Your task to perform on an android device: turn off data saver in the chrome app Image 0: 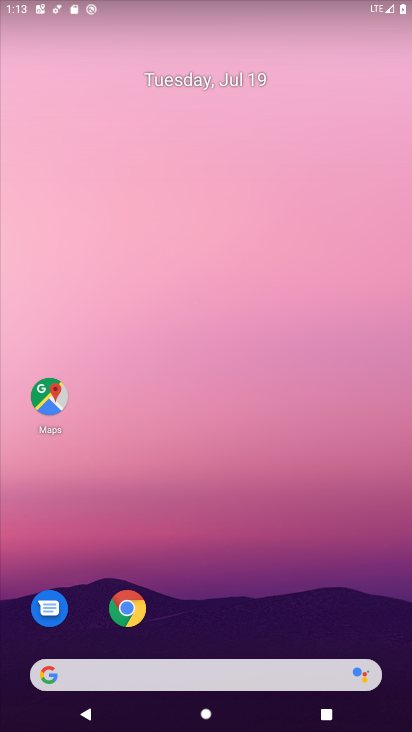
Step 0: drag from (223, 536) to (289, 129)
Your task to perform on an android device: turn off data saver in the chrome app Image 1: 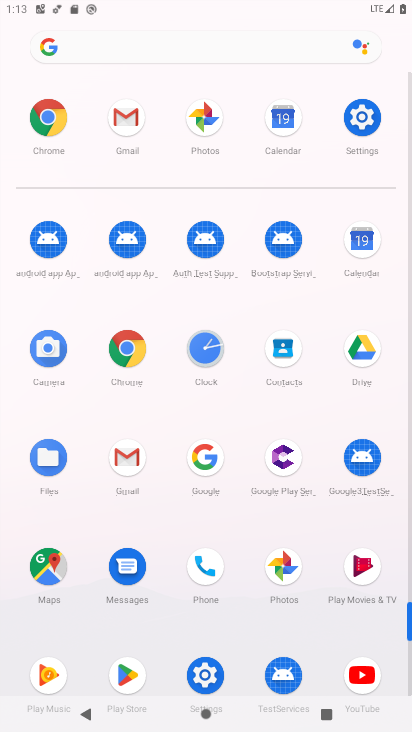
Step 1: click (122, 342)
Your task to perform on an android device: turn off data saver in the chrome app Image 2: 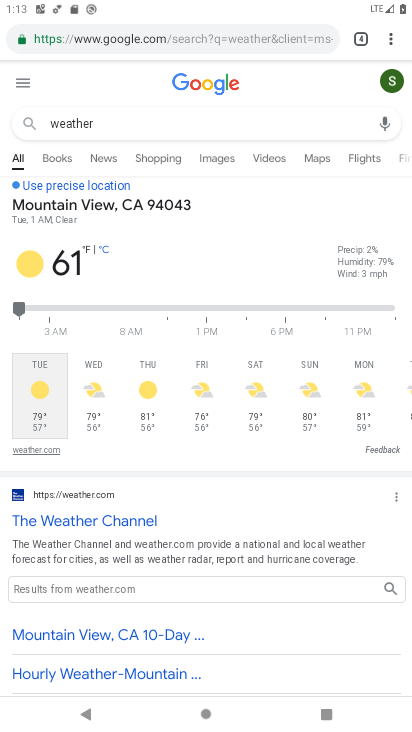
Step 2: click (390, 35)
Your task to perform on an android device: turn off data saver in the chrome app Image 3: 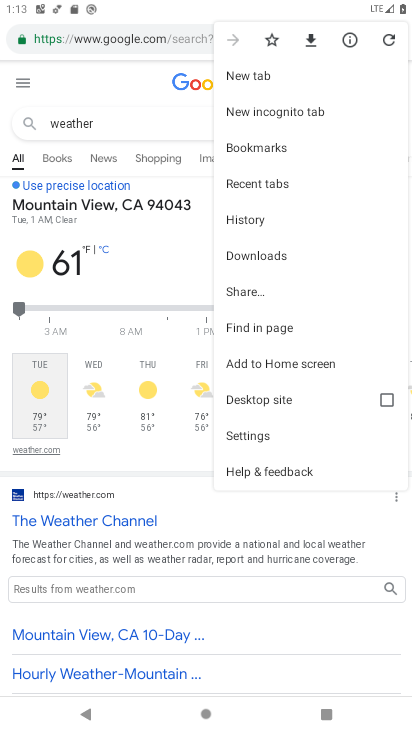
Step 3: click (278, 435)
Your task to perform on an android device: turn off data saver in the chrome app Image 4: 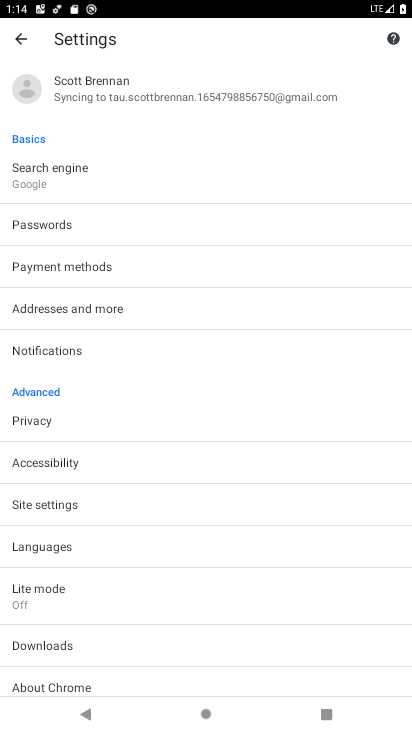
Step 4: click (116, 600)
Your task to perform on an android device: turn off data saver in the chrome app Image 5: 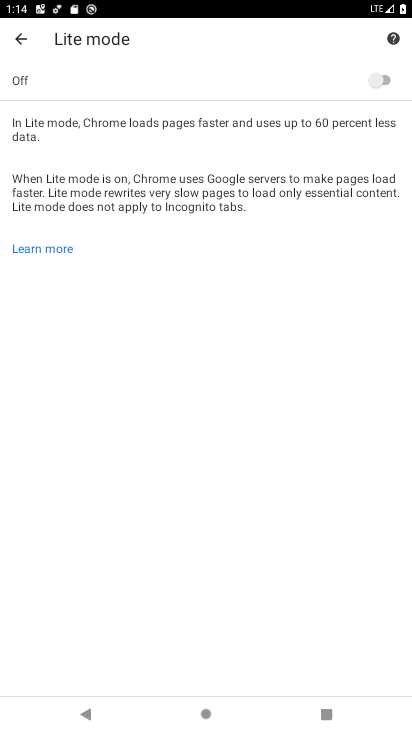
Step 5: task complete